Your task to perform on an android device: Open Android settings Image 0: 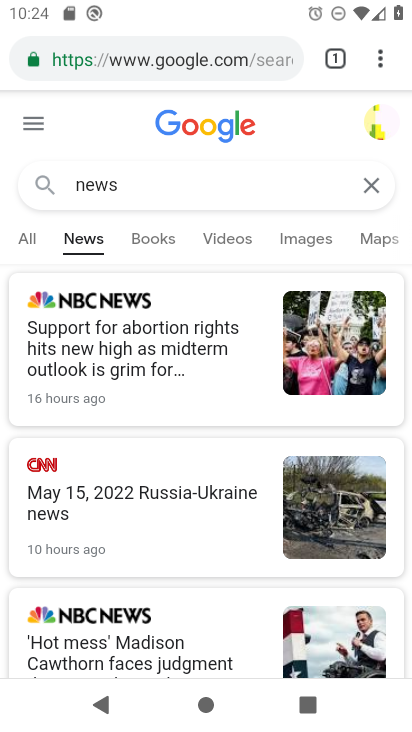
Step 0: task complete